Your task to perform on an android device: change the upload size in google photos Image 0: 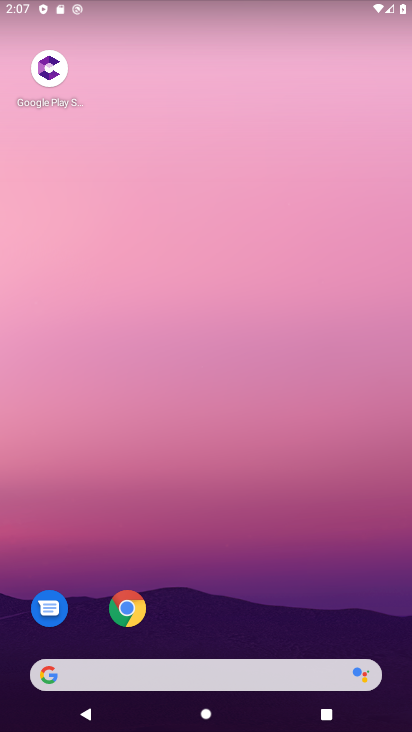
Step 0: drag from (394, 658) to (319, 94)
Your task to perform on an android device: change the upload size in google photos Image 1: 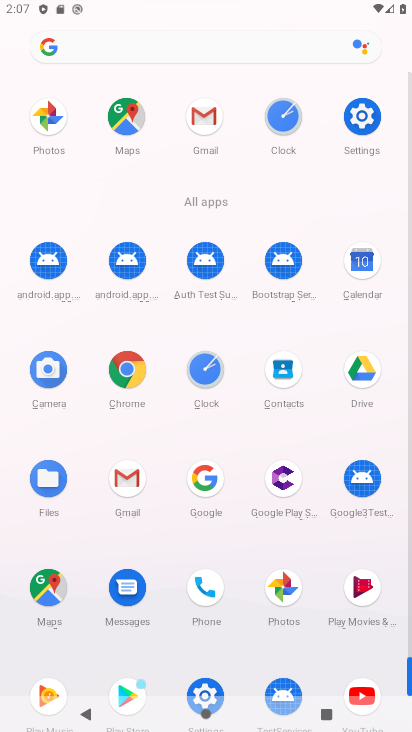
Step 1: click (285, 588)
Your task to perform on an android device: change the upload size in google photos Image 2: 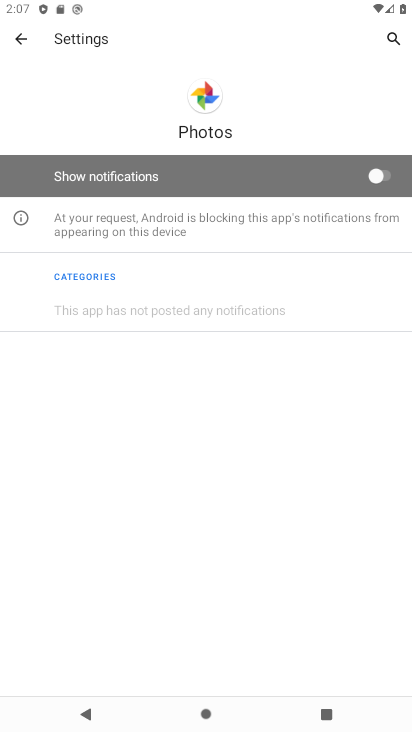
Step 2: press back button
Your task to perform on an android device: change the upload size in google photos Image 3: 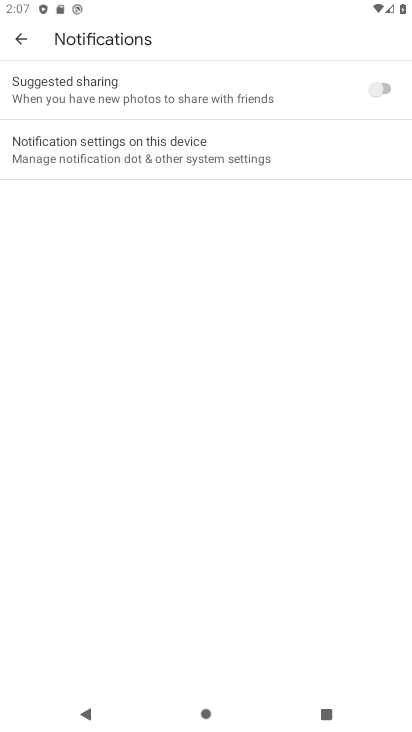
Step 3: press back button
Your task to perform on an android device: change the upload size in google photos Image 4: 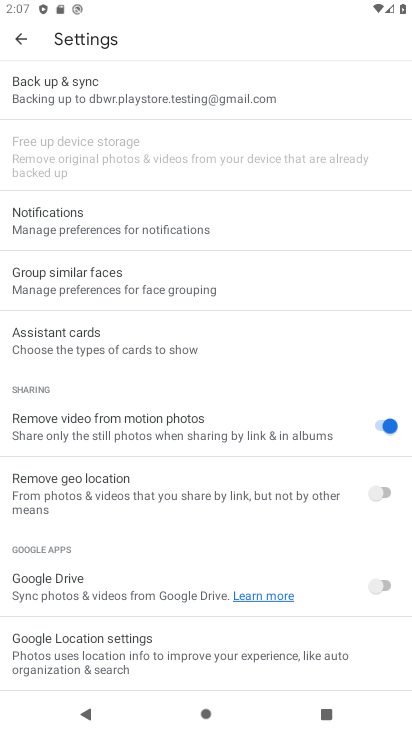
Step 4: click (80, 95)
Your task to perform on an android device: change the upload size in google photos Image 5: 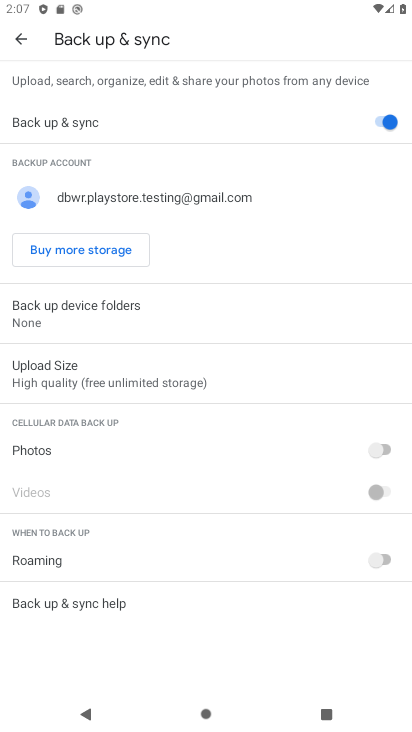
Step 5: click (42, 377)
Your task to perform on an android device: change the upload size in google photos Image 6: 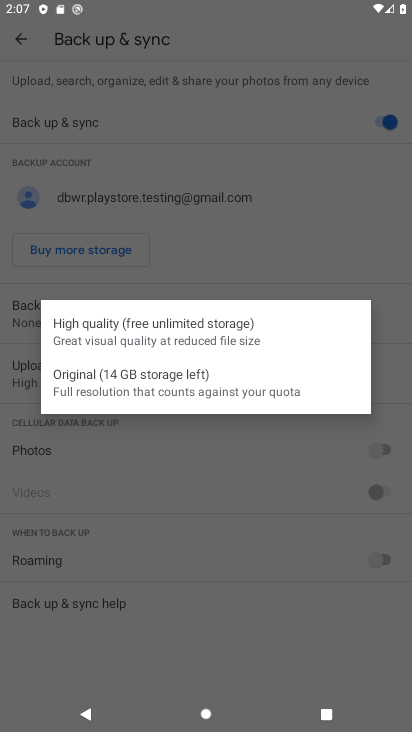
Step 6: click (119, 378)
Your task to perform on an android device: change the upload size in google photos Image 7: 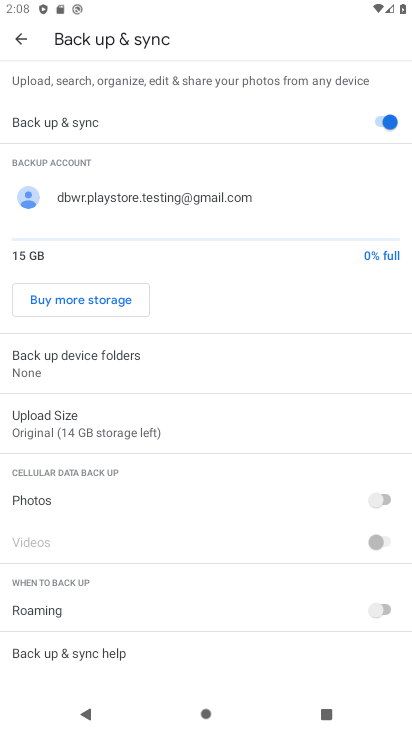
Step 7: task complete